Your task to perform on an android device: Open notification settings Image 0: 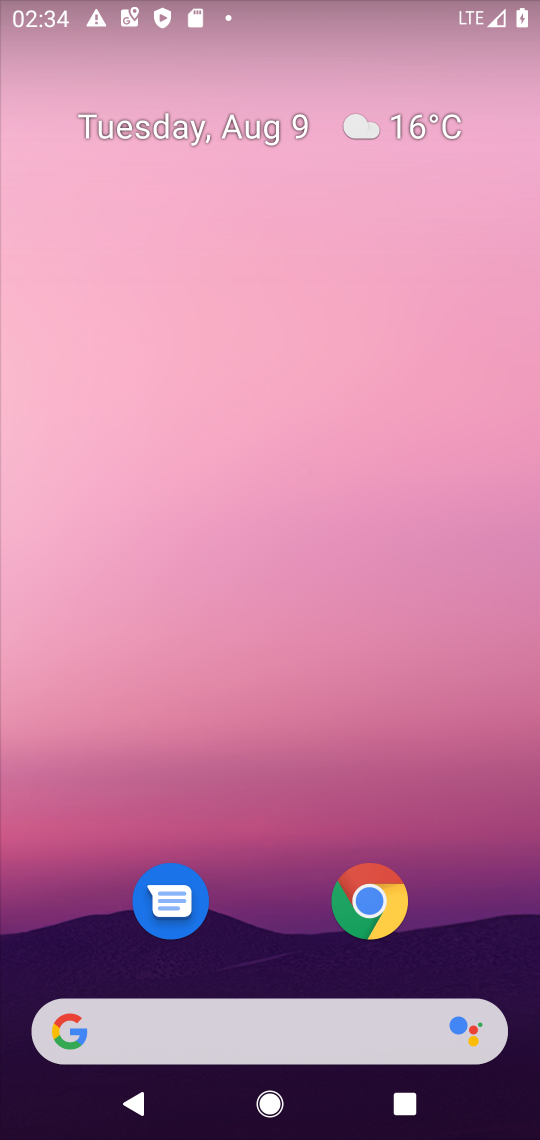
Step 0: drag from (505, 895) to (476, 222)
Your task to perform on an android device: Open notification settings Image 1: 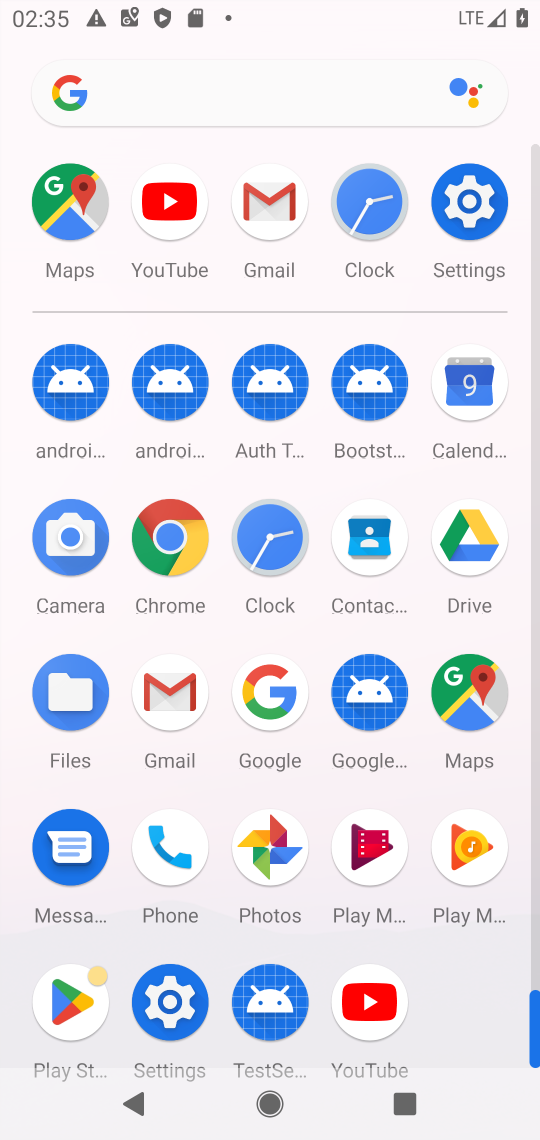
Step 1: click (172, 999)
Your task to perform on an android device: Open notification settings Image 2: 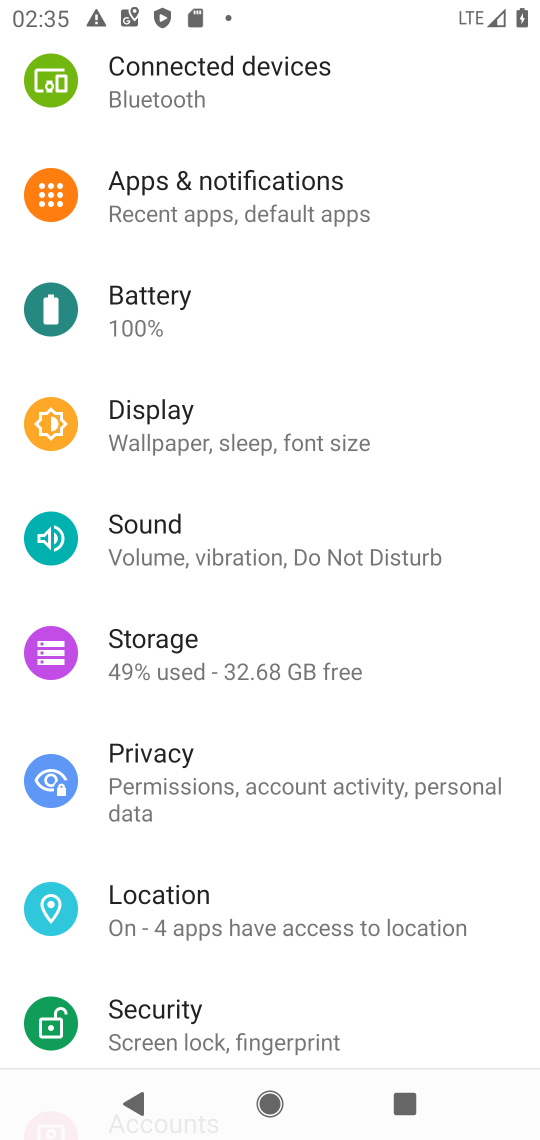
Step 2: drag from (411, 342) to (391, 612)
Your task to perform on an android device: Open notification settings Image 3: 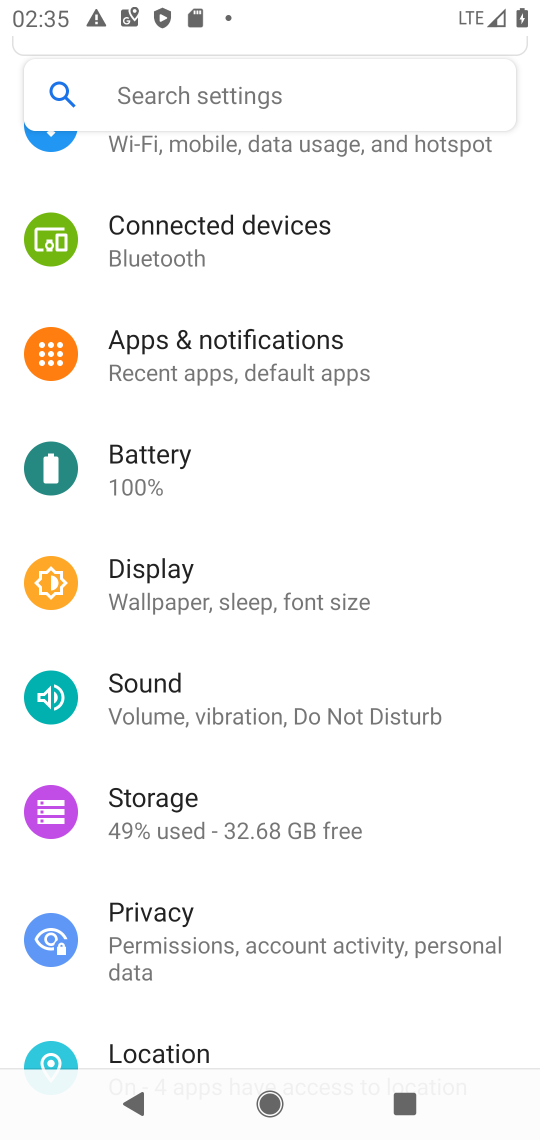
Step 3: click (195, 342)
Your task to perform on an android device: Open notification settings Image 4: 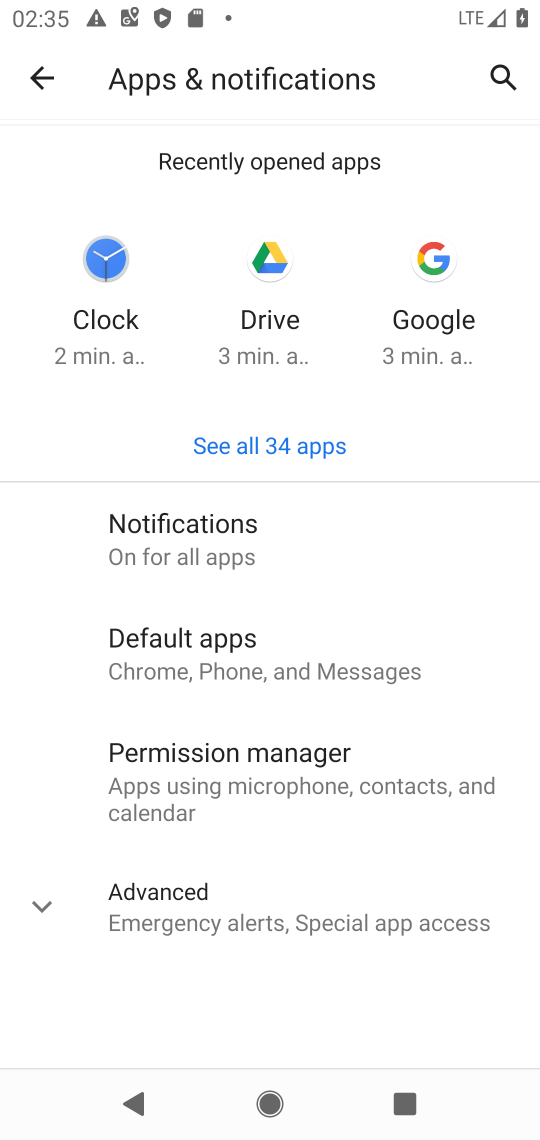
Step 4: click (179, 535)
Your task to perform on an android device: Open notification settings Image 5: 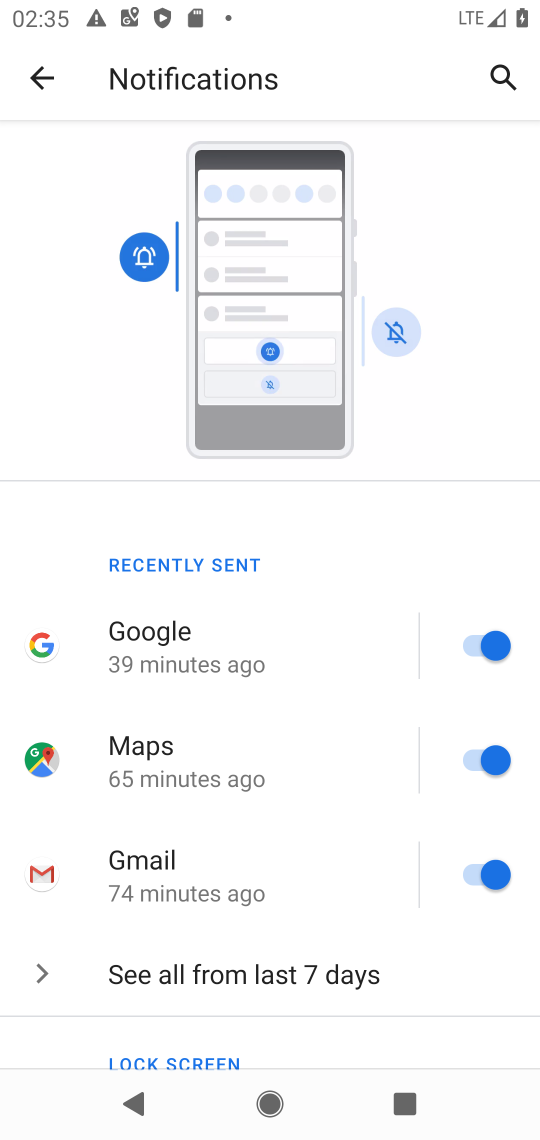
Step 5: drag from (424, 960) to (454, 241)
Your task to perform on an android device: Open notification settings Image 6: 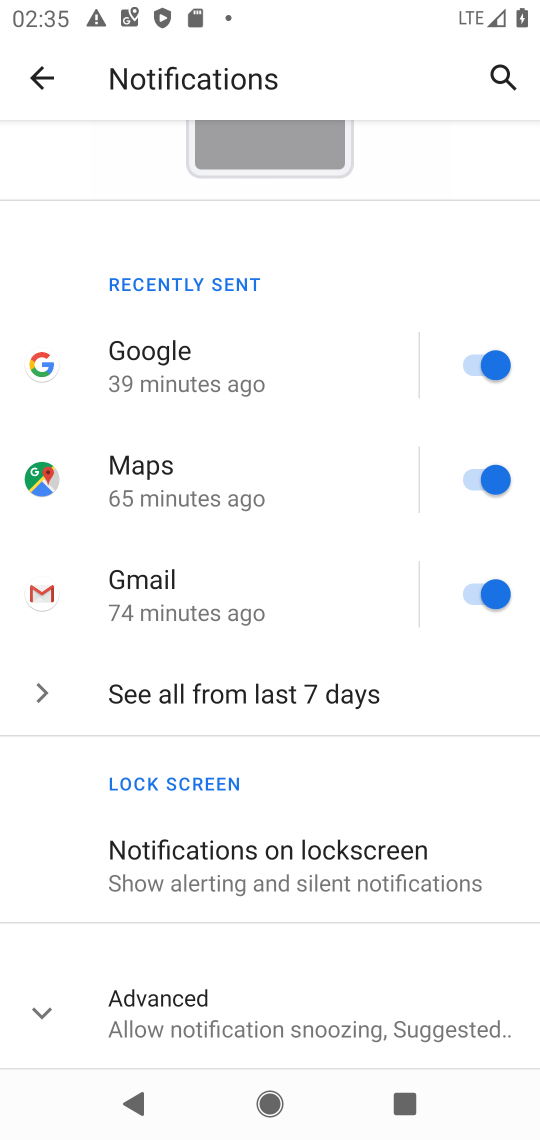
Step 6: click (41, 1016)
Your task to perform on an android device: Open notification settings Image 7: 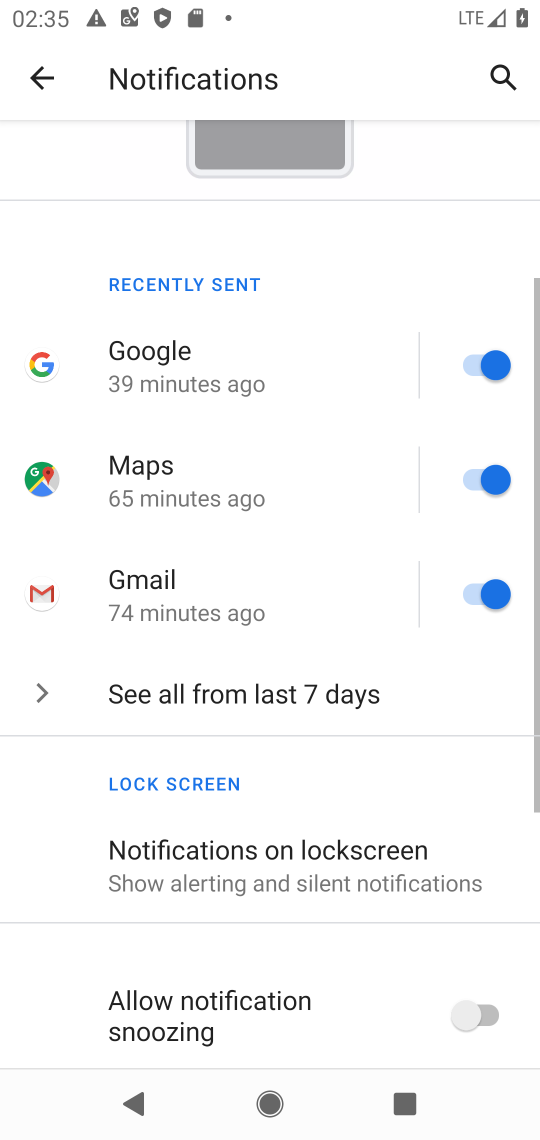
Step 7: task complete